Your task to perform on an android device: turn on the 12-hour format for clock Image 0: 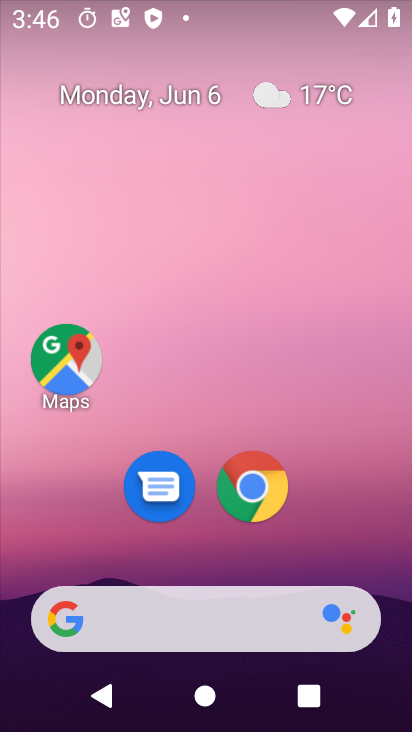
Step 0: drag from (330, 474) to (293, 99)
Your task to perform on an android device: turn on the 12-hour format for clock Image 1: 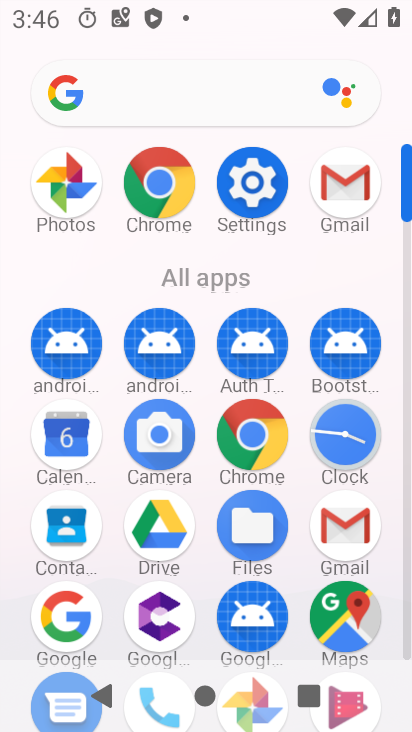
Step 1: click (337, 444)
Your task to perform on an android device: turn on the 12-hour format for clock Image 2: 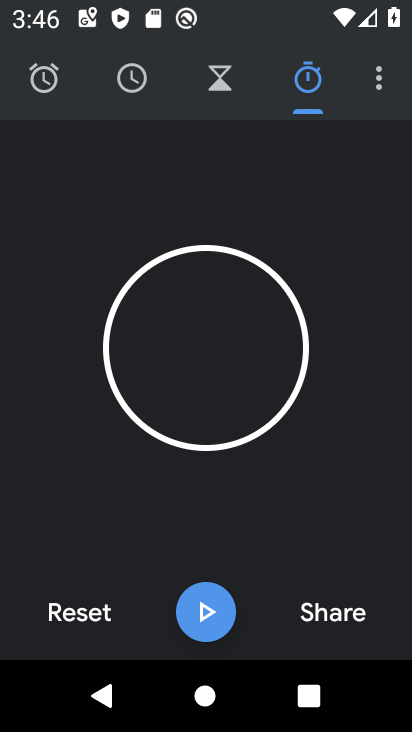
Step 2: drag from (391, 68) to (258, 142)
Your task to perform on an android device: turn on the 12-hour format for clock Image 3: 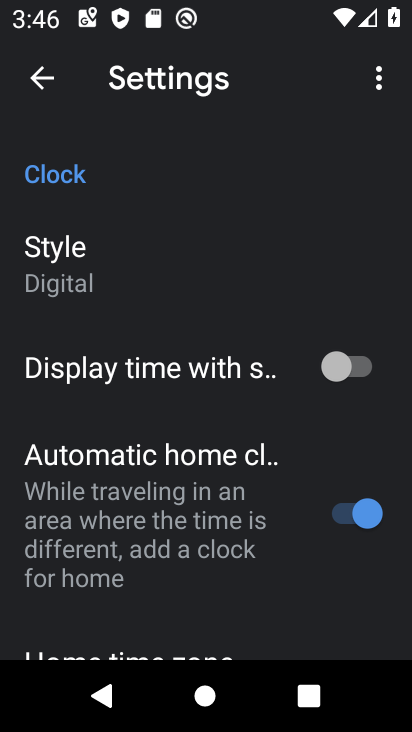
Step 3: drag from (216, 575) to (245, 231)
Your task to perform on an android device: turn on the 12-hour format for clock Image 4: 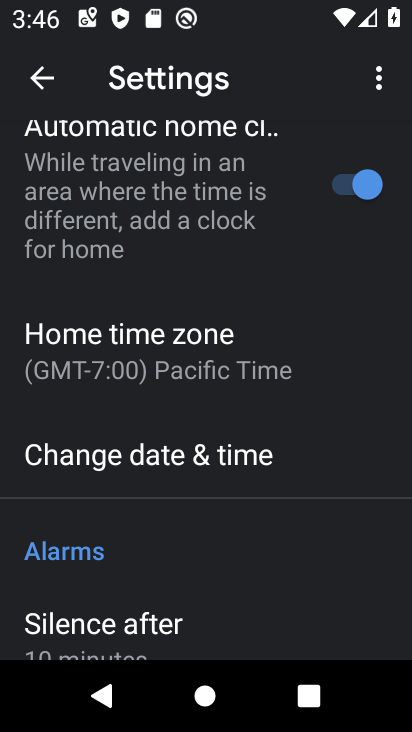
Step 4: click (201, 447)
Your task to perform on an android device: turn on the 12-hour format for clock Image 5: 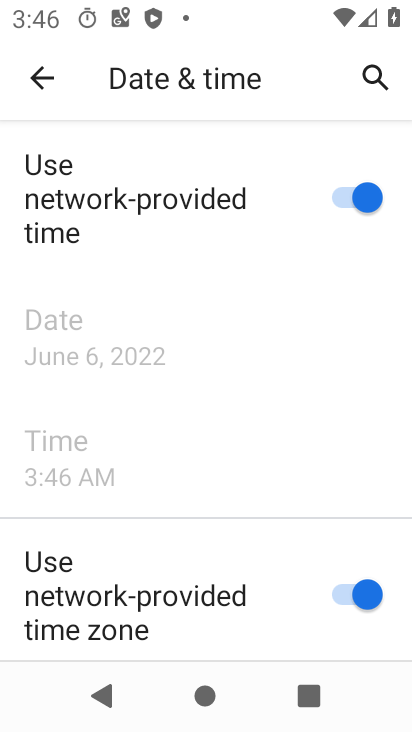
Step 5: drag from (202, 527) to (240, 159)
Your task to perform on an android device: turn on the 12-hour format for clock Image 6: 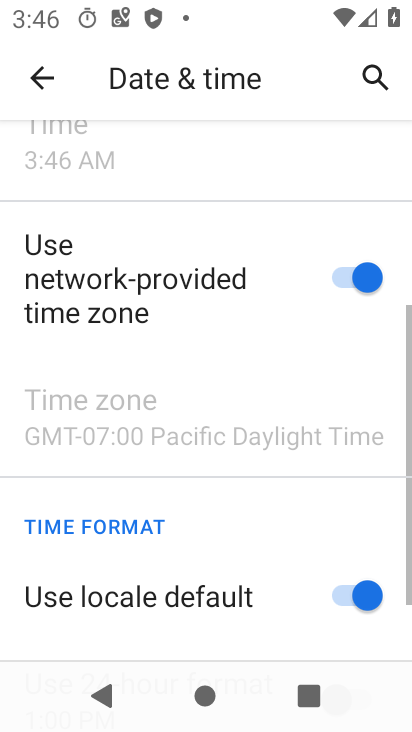
Step 6: click (240, 159)
Your task to perform on an android device: turn on the 12-hour format for clock Image 7: 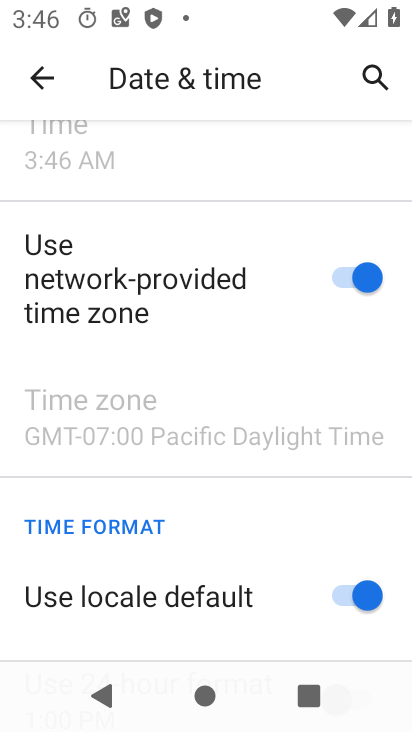
Step 7: task complete